Your task to perform on an android device: install app "ZOOM Cloud Meetings" Image 0: 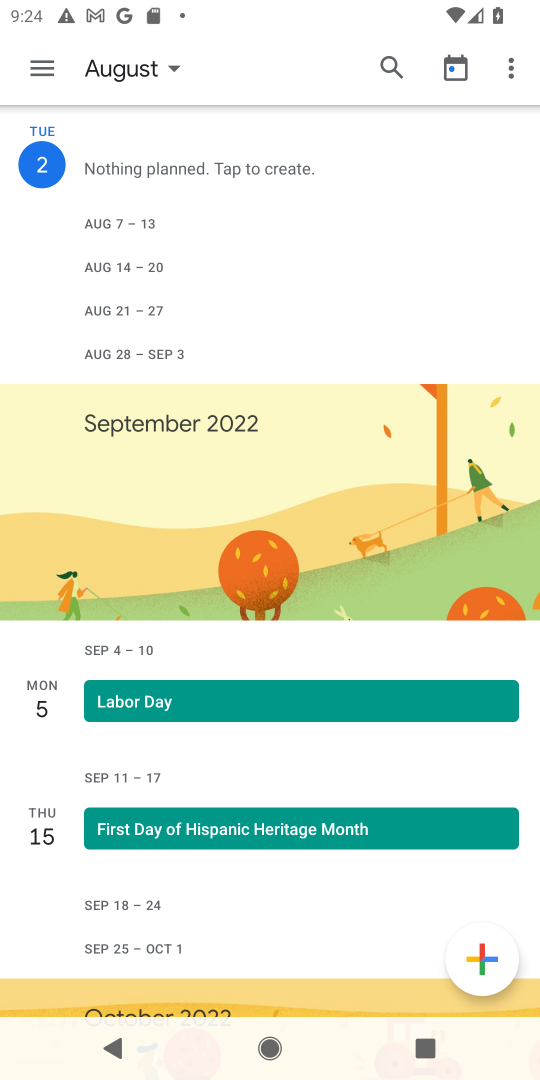
Step 0: press home button
Your task to perform on an android device: install app "ZOOM Cloud Meetings" Image 1: 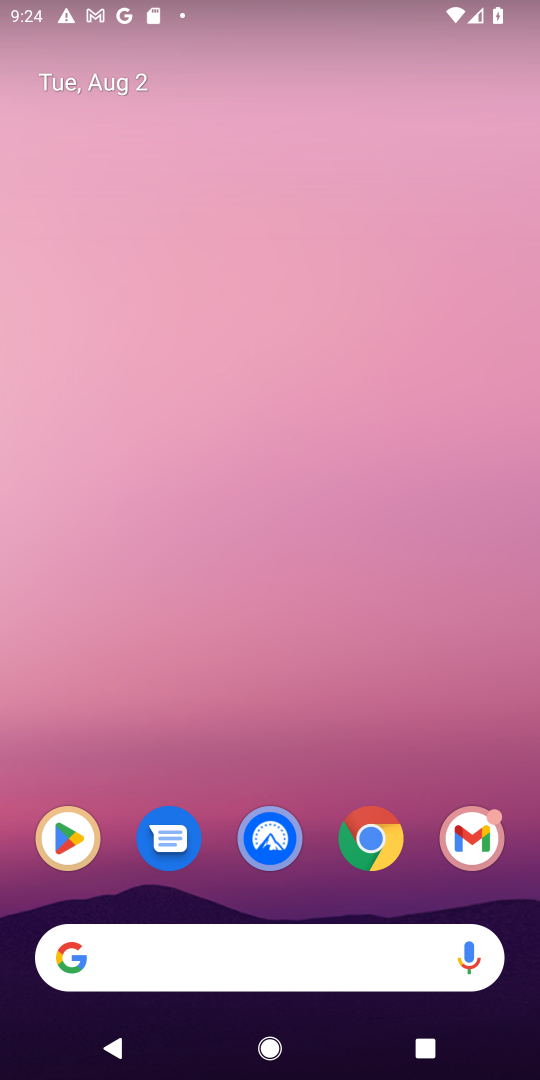
Step 1: drag from (315, 773) to (366, 69)
Your task to perform on an android device: install app "ZOOM Cloud Meetings" Image 2: 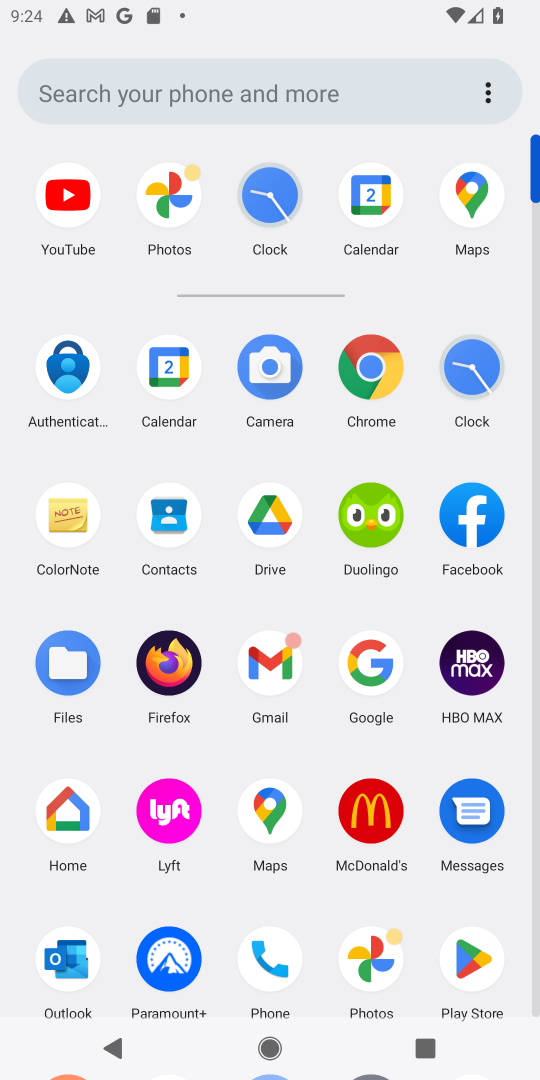
Step 2: click (470, 955)
Your task to perform on an android device: install app "ZOOM Cloud Meetings" Image 3: 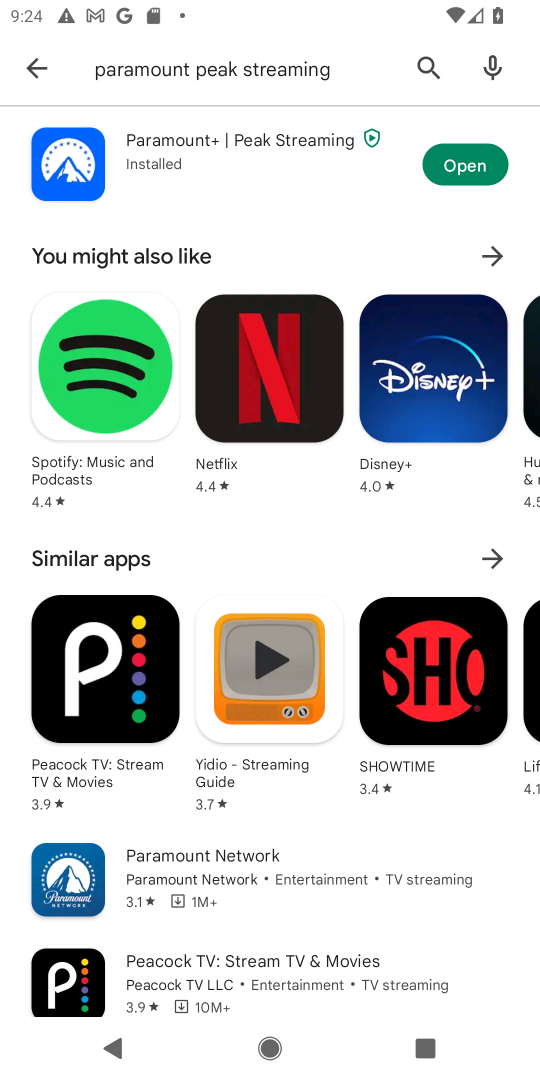
Step 3: click (425, 66)
Your task to perform on an android device: install app "ZOOM Cloud Meetings" Image 4: 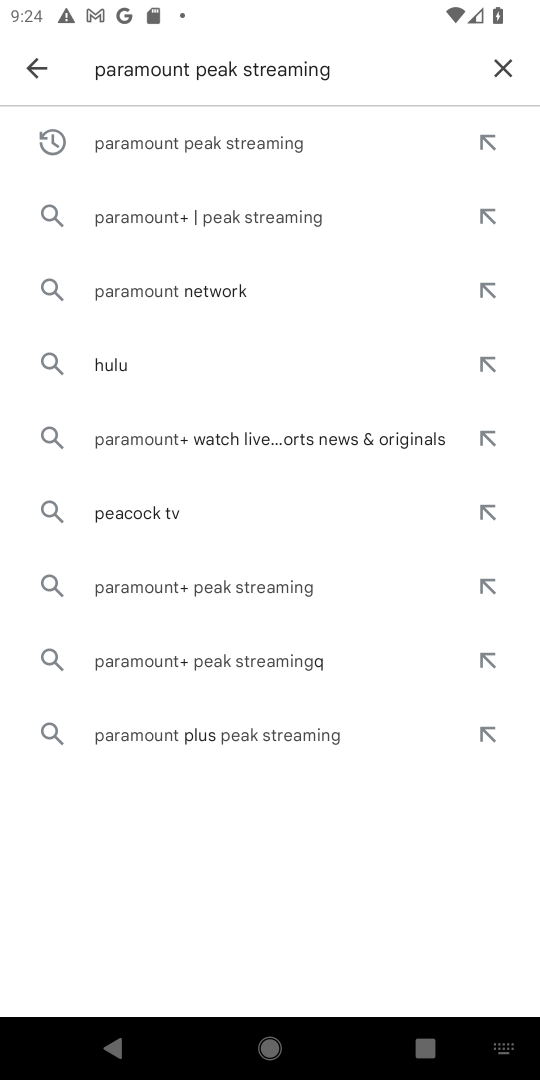
Step 4: click (504, 66)
Your task to perform on an android device: install app "ZOOM Cloud Meetings" Image 5: 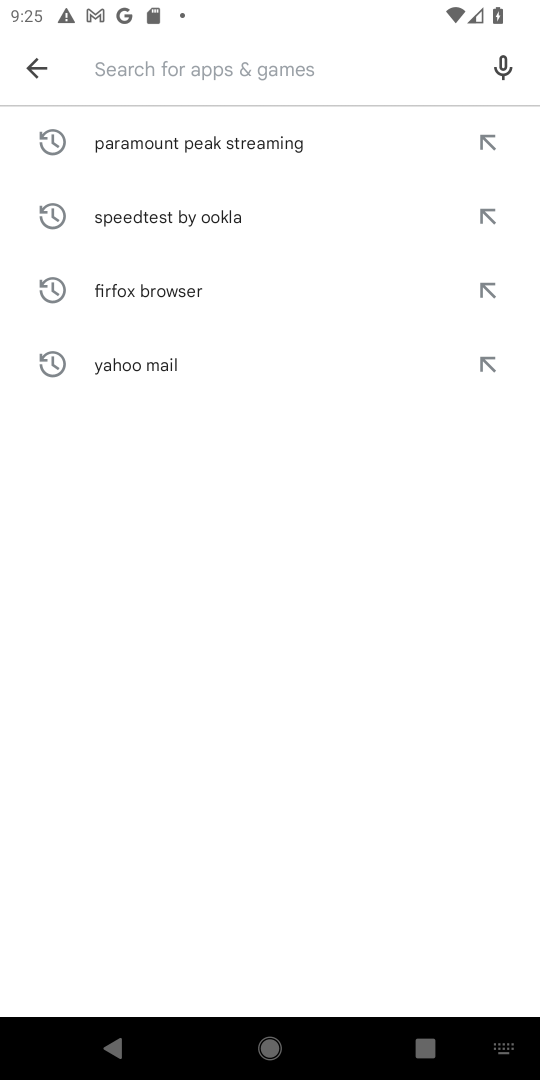
Step 5: click (381, 72)
Your task to perform on an android device: install app "ZOOM Cloud Meetings" Image 6: 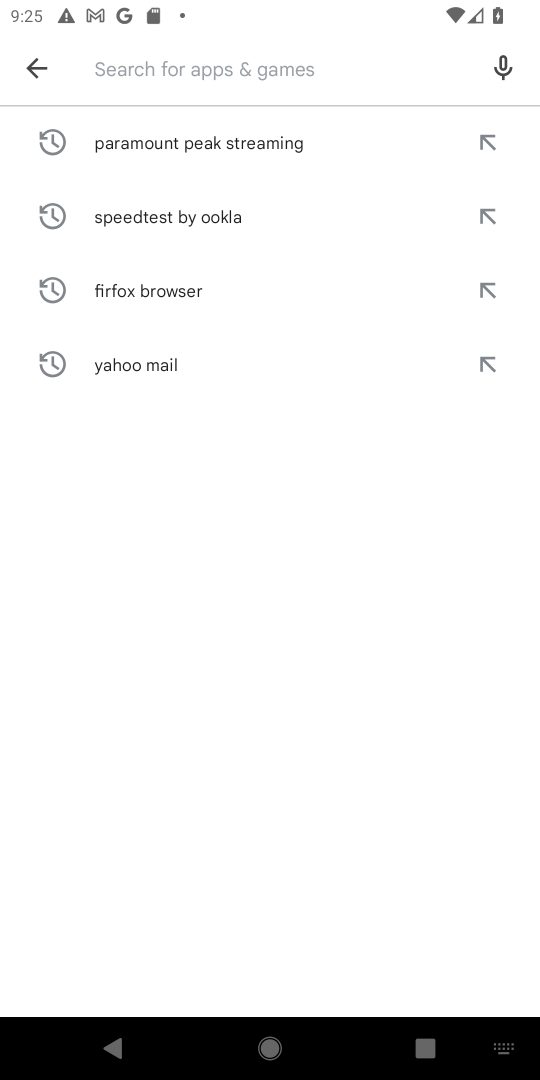
Step 6: type "zoom cloud meeting "
Your task to perform on an android device: install app "ZOOM Cloud Meetings" Image 7: 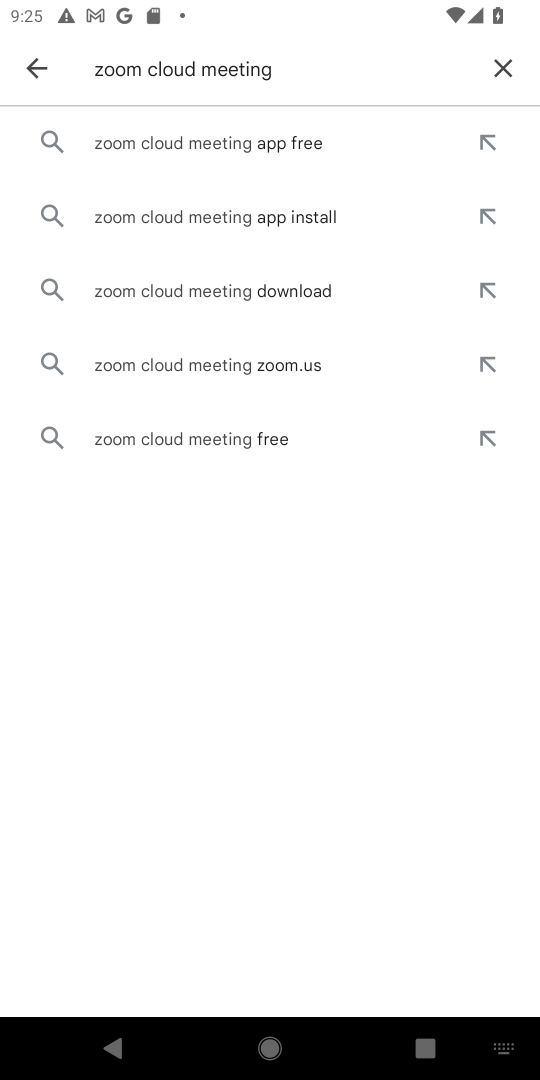
Step 7: click (298, 149)
Your task to perform on an android device: install app "ZOOM Cloud Meetings" Image 8: 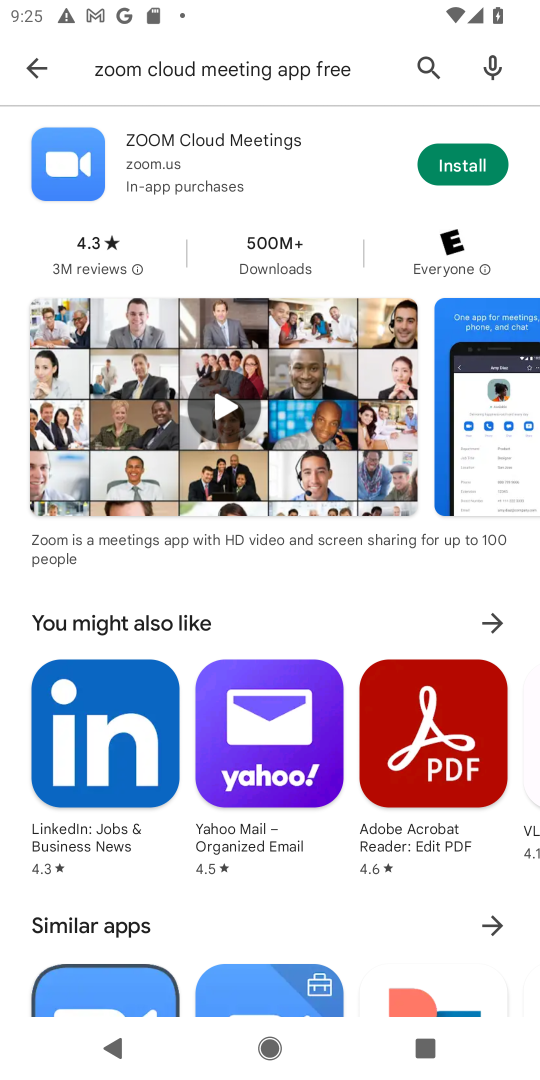
Step 8: click (479, 168)
Your task to perform on an android device: install app "ZOOM Cloud Meetings" Image 9: 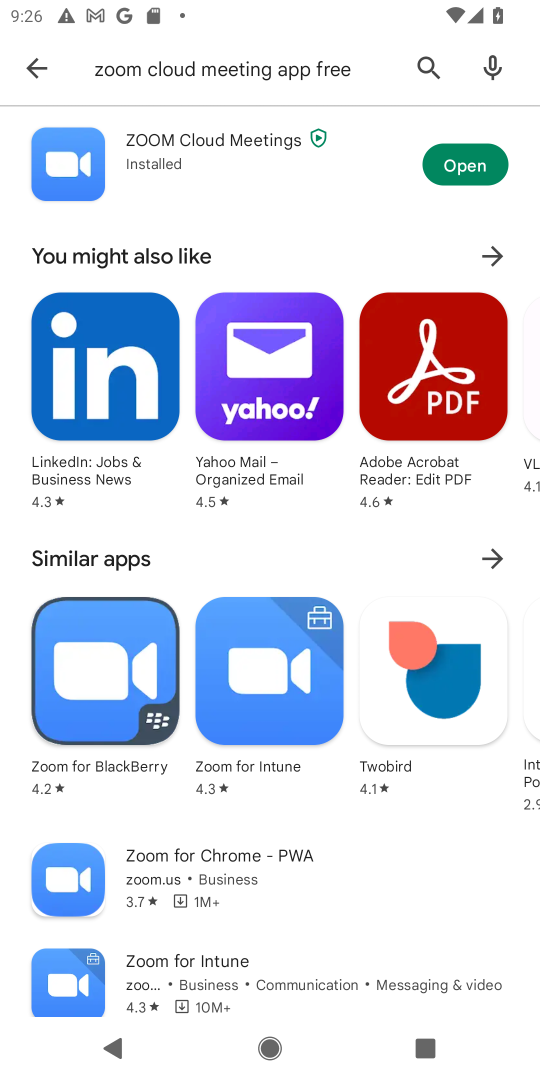
Step 9: task complete